Your task to perform on an android device: Go to ESPN.com Image 0: 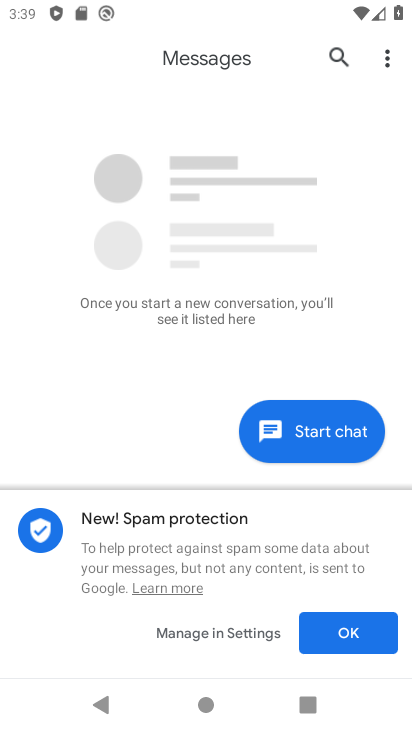
Step 0: press home button
Your task to perform on an android device: Go to ESPN.com Image 1: 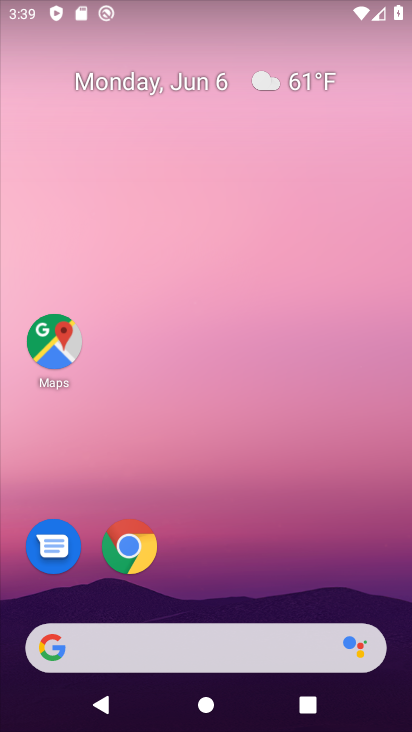
Step 1: click (124, 553)
Your task to perform on an android device: Go to ESPN.com Image 2: 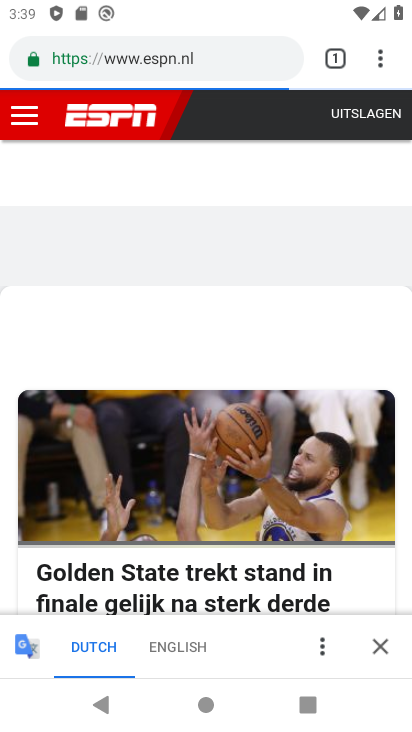
Step 2: task complete